Your task to perform on an android device: open a bookmark in the chrome app Image 0: 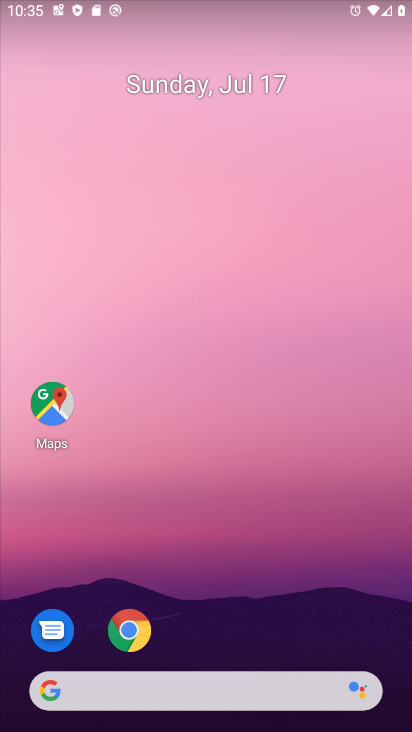
Step 0: drag from (323, 615) to (353, 89)
Your task to perform on an android device: open a bookmark in the chrome app Image 1: 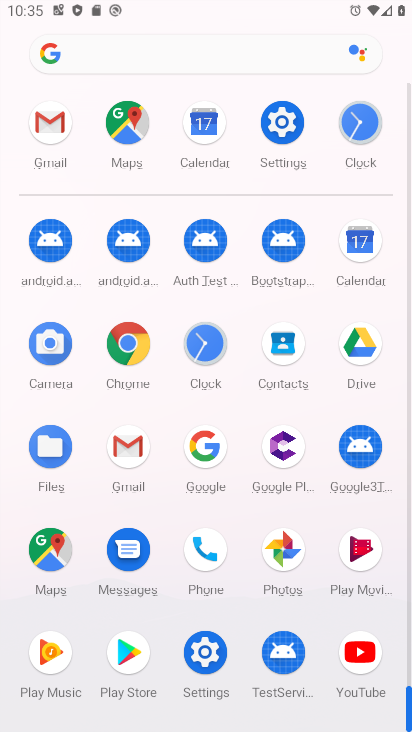
Step 1: click (132, 350)
Your task to perform on an android device: open a bookmark in the chrome app Image 2: 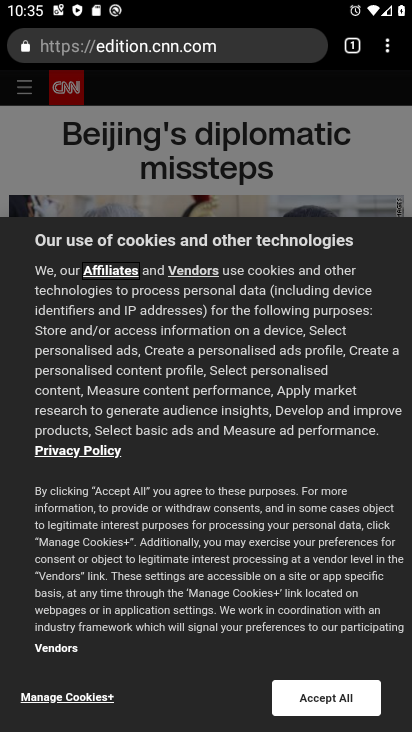
Step 2: click (386, 47)
Your task to perform on an android device: open a bookmark in the chrome app Image 3: 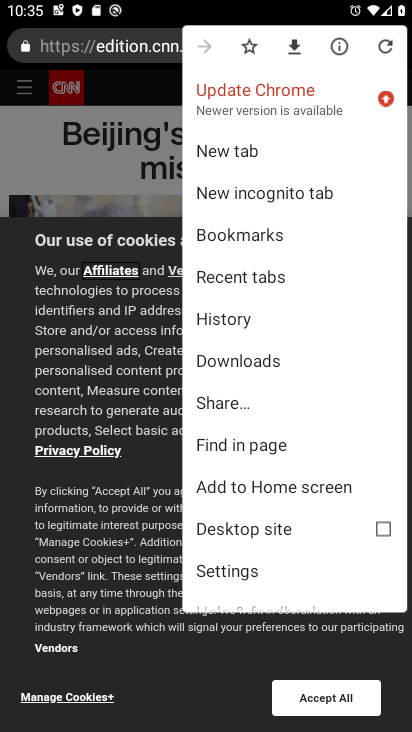
Step 3: drag from (349, 381) to (353, 282)
Your task to perform on an android device: open a bookmark in the chrome app Image 4: 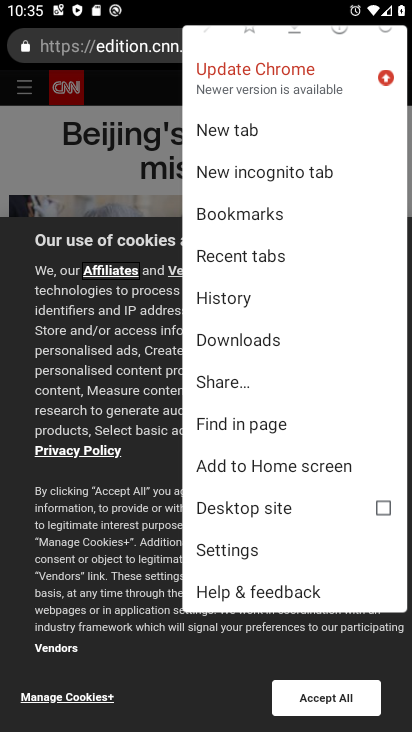
Step 4: click (257, 208)
Your task to perform on an android device: open a bookmark in the chrome app Image 5: 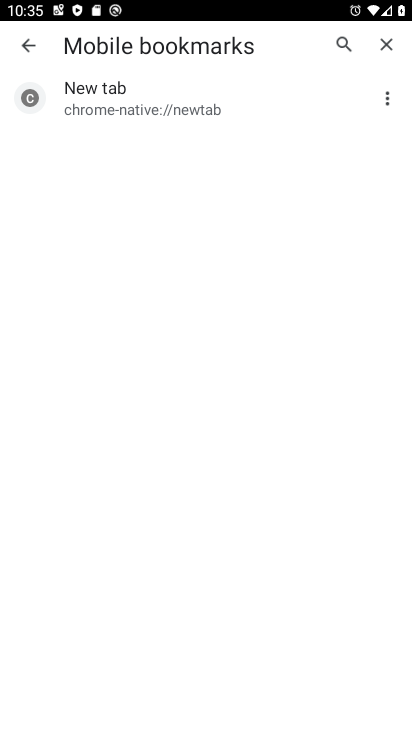
Step 5: click (159, 101)
Your task to perform on an android device: open a bookmark in the chrome app Image 6: 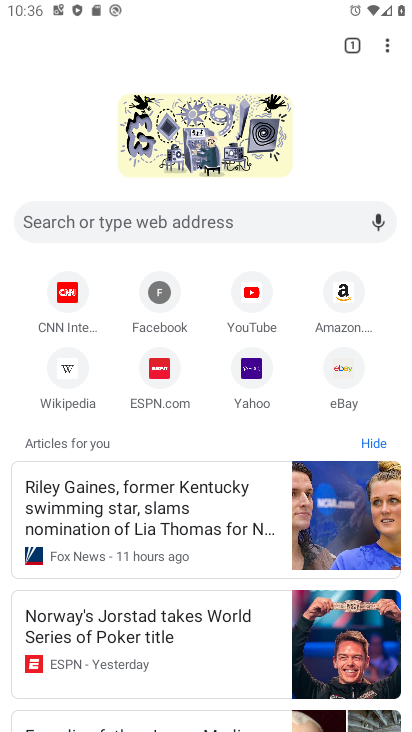
Step 6: task complete